Your task to perform on an android device: empty trash in google photos Image 0: 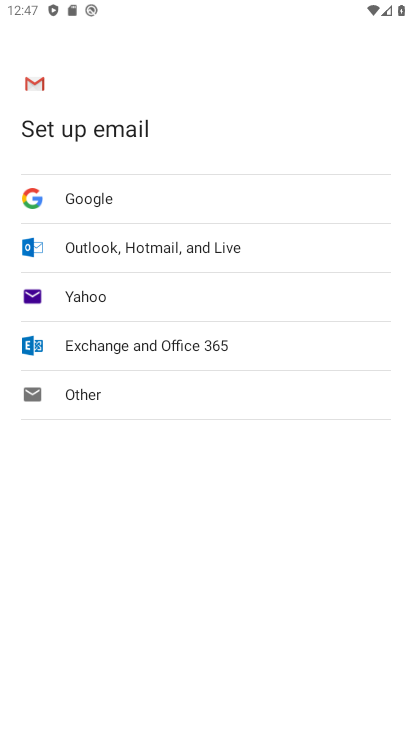
Step 0: press home button
Your task to perform on an android device: empty trash in google photos Image 1: 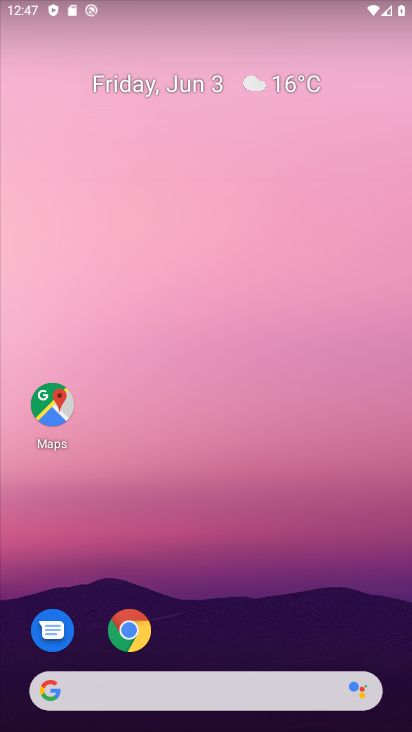
Step 1: drag from (312, 717) to (243, 156)
Your task to perform on an android device: empty trash in google photos Image 2: 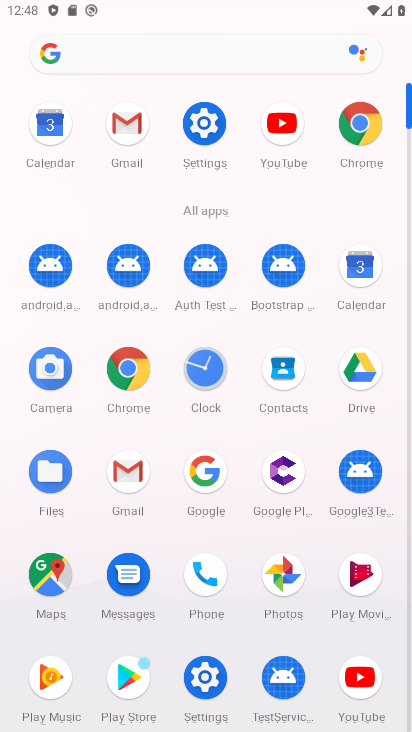
Step 2: click (296, 585)
Your task to perform on an android device: empty trash in google photos Image 3: 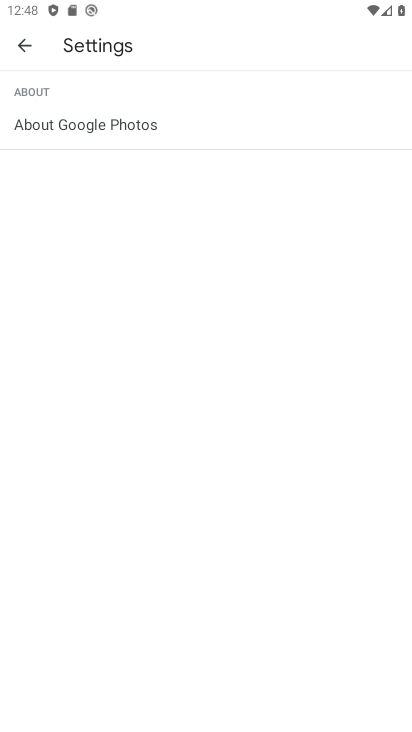
Step 3: click (40, 51)
Your task to perform on an android device: empty trash in google photos Image 4: 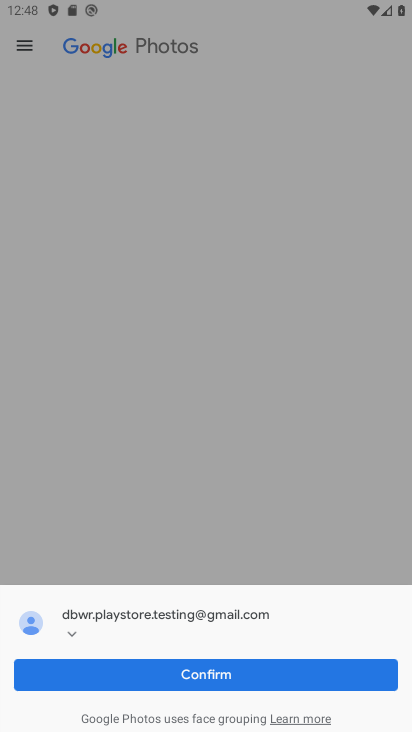
Step 4: click (25, 54)
Your task to perform on an android device: empty trash in google photos Image 5: 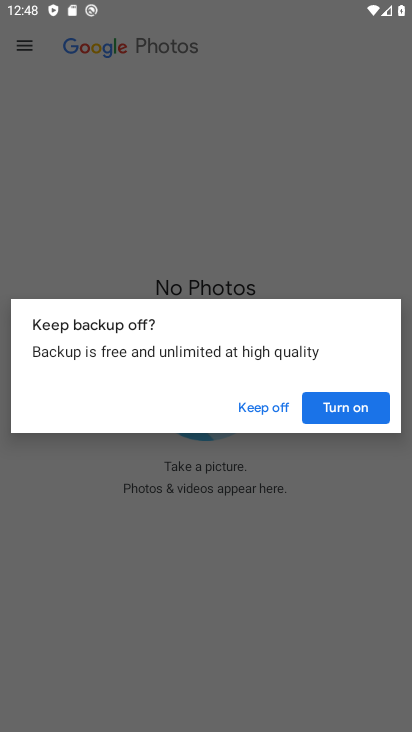
Step 5: click (321, 407)
Your task to perform on an android device: empty trash in google photos Image 6: 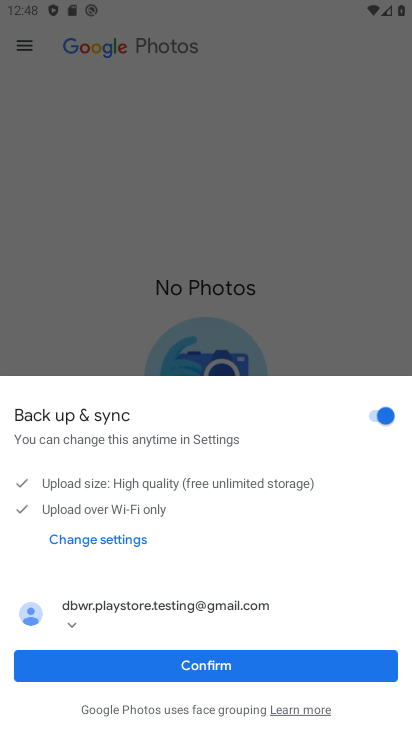
Step 6: click (267, 657)
Your task to perform on an android device: empty trash in google photos Image 7: 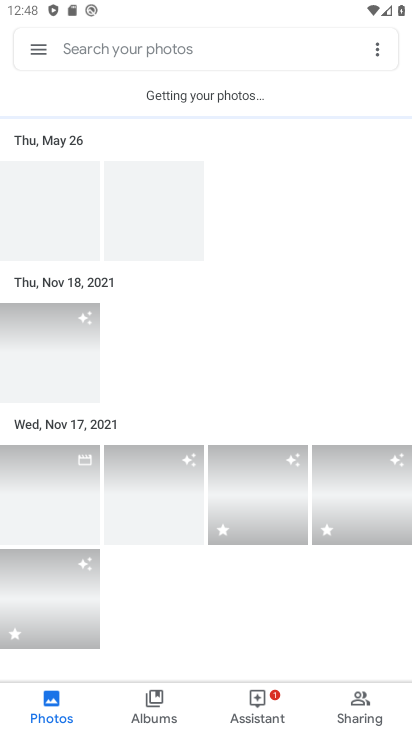
Step 7: click (44, 47)
Your task to perform on an android device: empty trash in google photos Image 8: 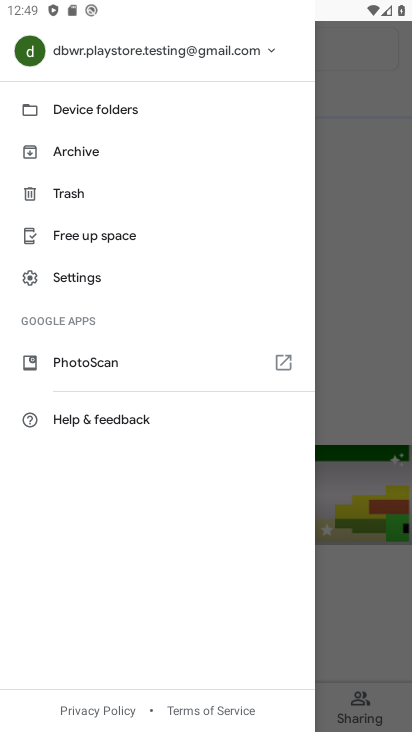
Step 8: click (76, 191)
Your task to perform on an android device: empty trash in google photos Image 9: 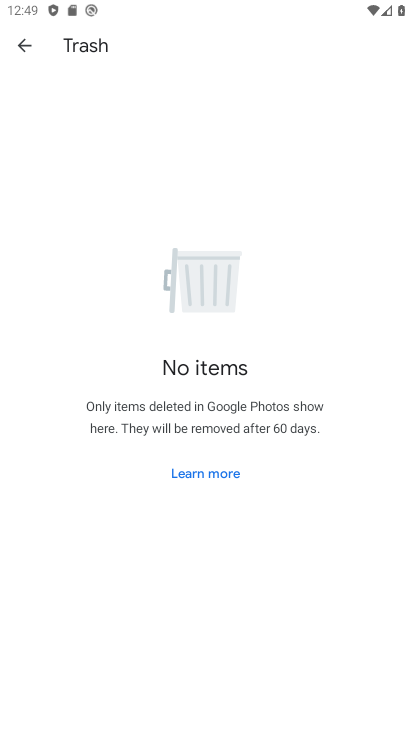
Step 9: task complete